Your task to perform on an android device: Do I have any events tomorrow? Image 0: 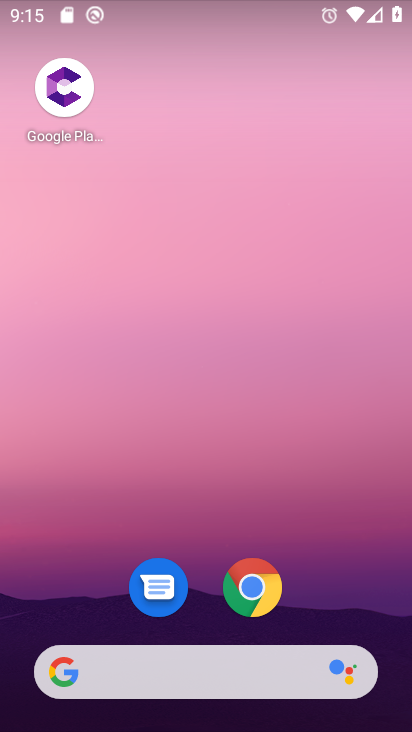
Step 0: drag from (198, 563) to (235, 2)
Your task to perform on an android device: Do I have any events tomorrow? Image 1: 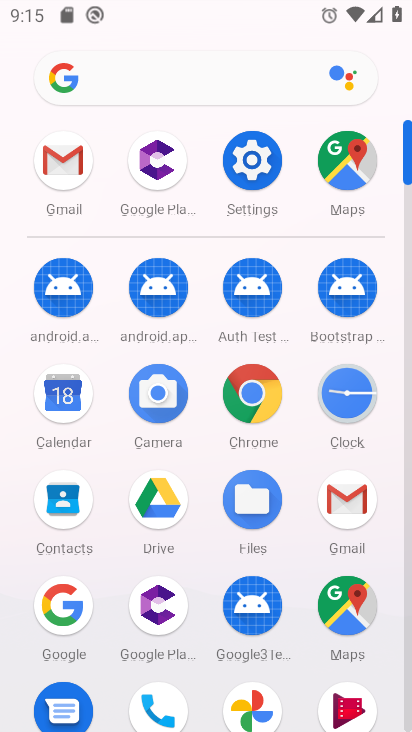
Step 1: click (55, 459)
Your task to perform on an android device: Do I have any events tomorrow? Image 2: 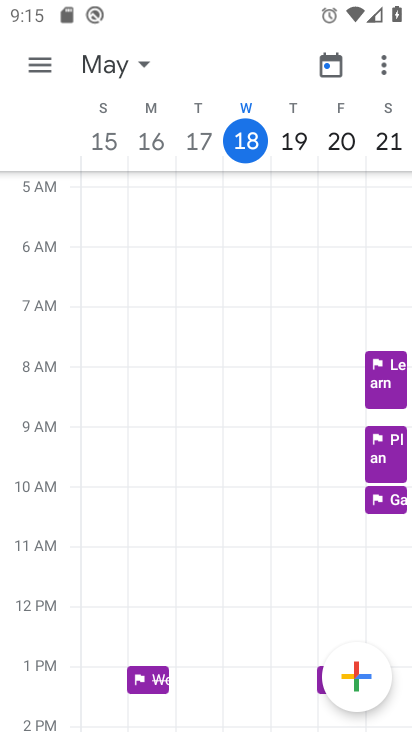
Step 2: click (34, 70)
Your task to perform on an android device: Do I have any events tomorrow? Image 3: 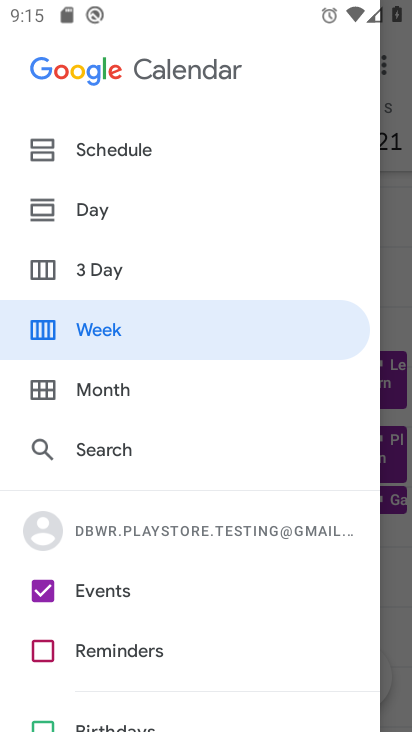
Step 3: click (140, 271)
Your task to perform on an android device: Do I have any events tomorrow? Image 4: 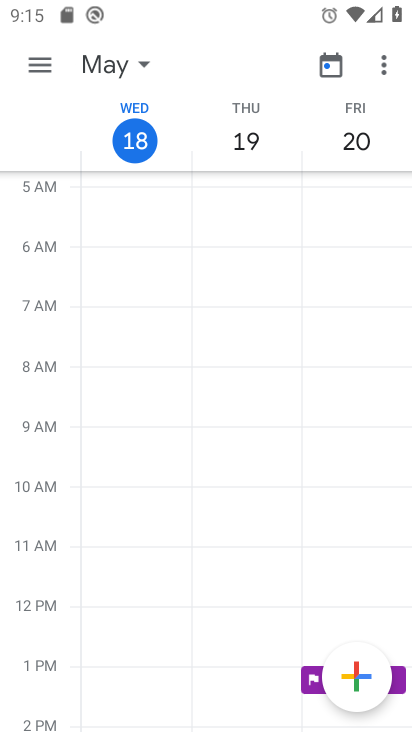
Step 4: task complete